Your task to perform on an android device: turn on location history Image 0: 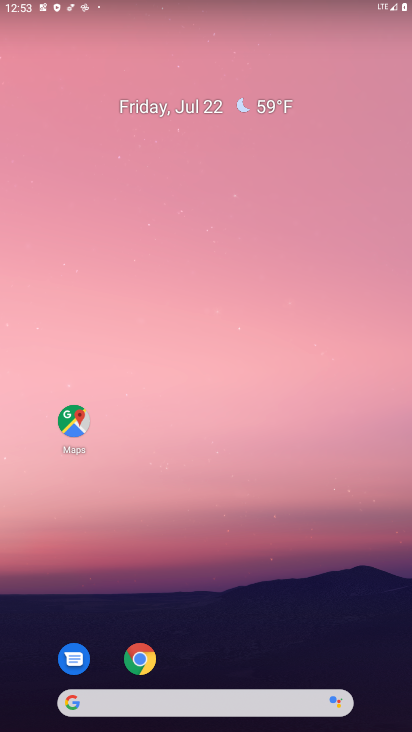
Step 0: drag from (303, 577) to (290, 0)
Your task to perform on an android device: turn on location history Image 1: 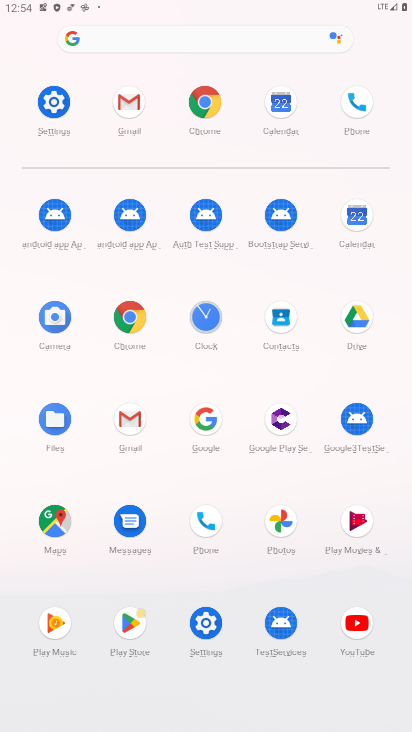
Step 1: click (55, 105)
Your task to perform on an android device: turn on location history Image 2: 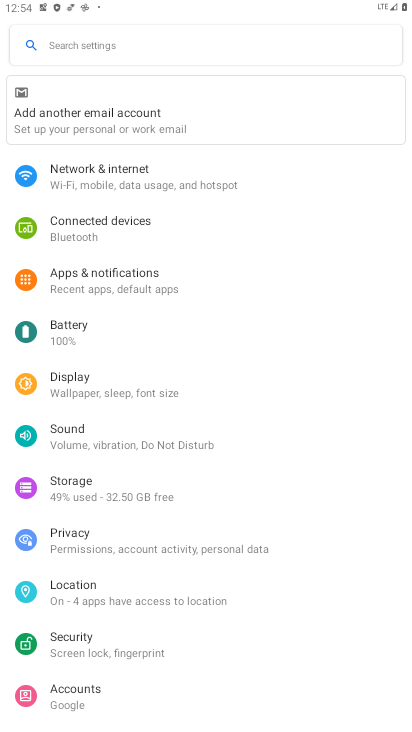
Step 2: click (70, 596)
Your task to perform on an android device: turn on location history Image 3: 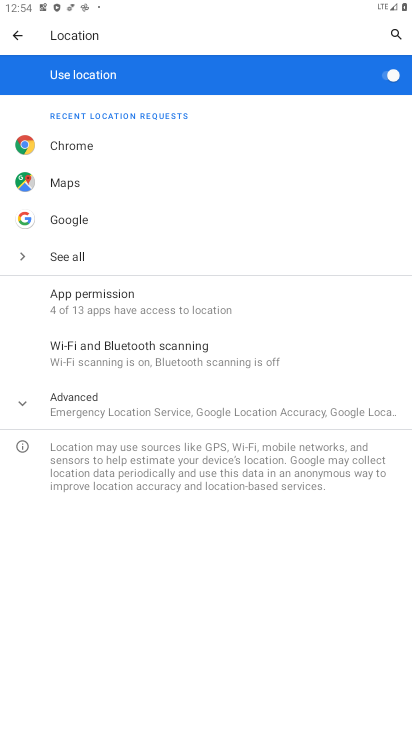
Step 3: click (104, 412)
Your task to perform on an android device: turn on location history Image 4: 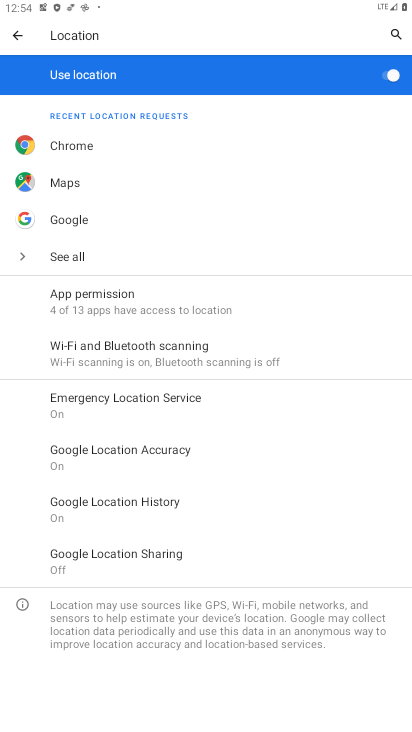
Step 4: click (113, 501)
Your task to perform on an android device: turn on location history Image 5: 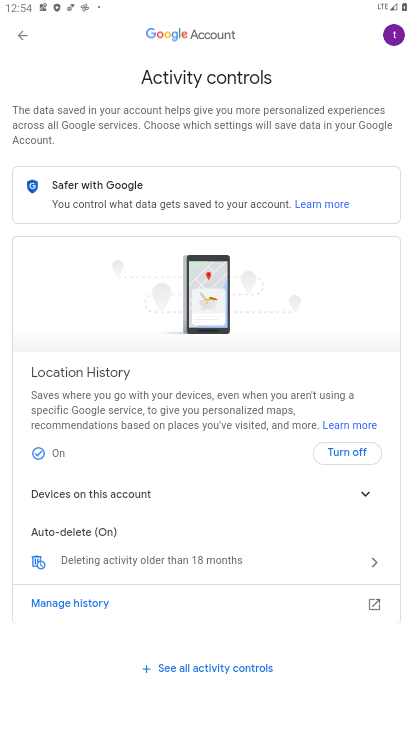
Step 5: task complete